Your task to perform on an android device: Open Youtube and go to "Your channel" Image 0: 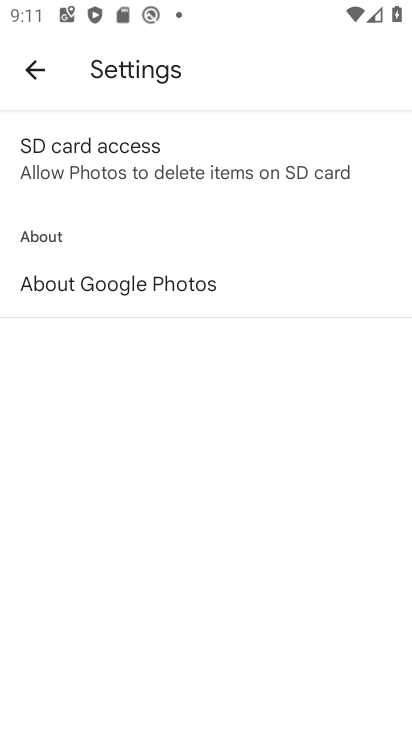
Step 0: press home button
Your task to perform on an android device: Open Youtube and go to "Your channel" Image 1: 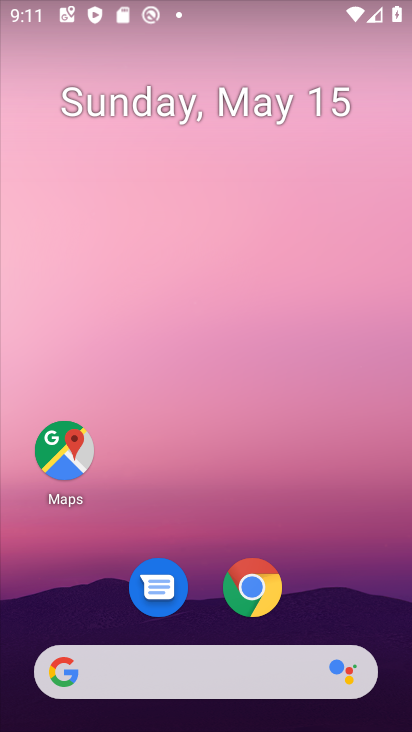
Step 1: drag from (358, 615) to (241, 61)
Your task to perform on an android device: Open Youtube and go to "Your channel" Image 2: 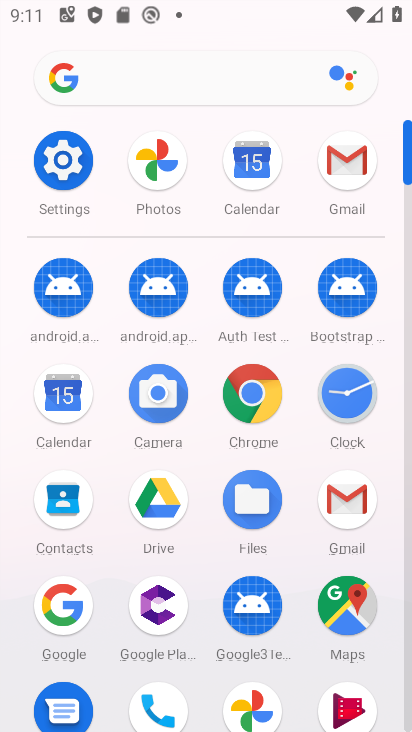
Step 2: drag from (299, 666) to (288, 192)
Your task to perform on an android device: Open Youtube and go to "Your channel" Image 3: 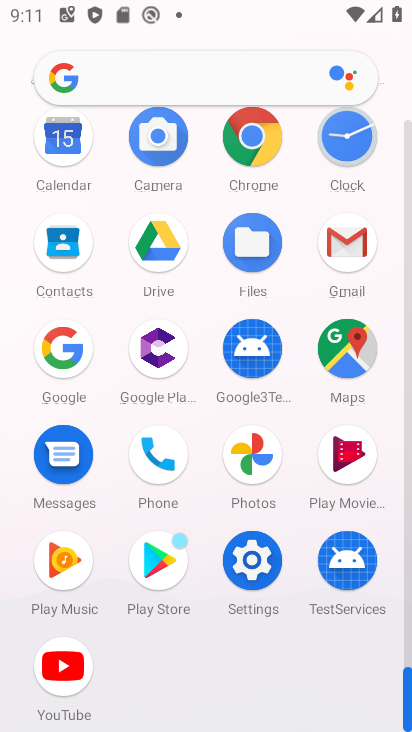
Step 3: click (62, 668)
Your task to perform on an android device: Open Youtube and go to "Your channel" Image 4: 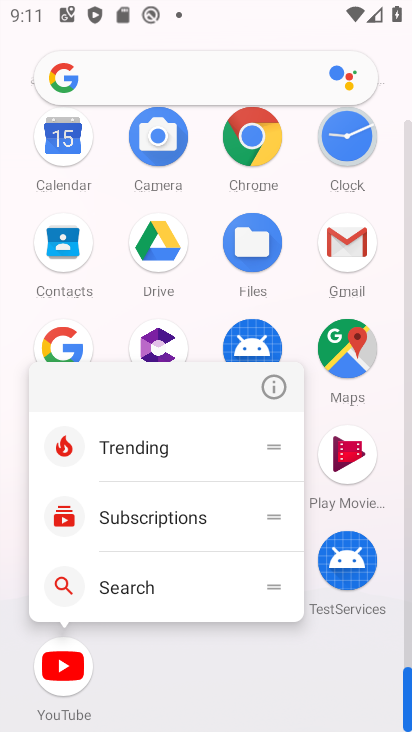
Step 4: click (62, 668)
Your task to perform on an android device: Open Youtube and go to "Your channel" Image 5: 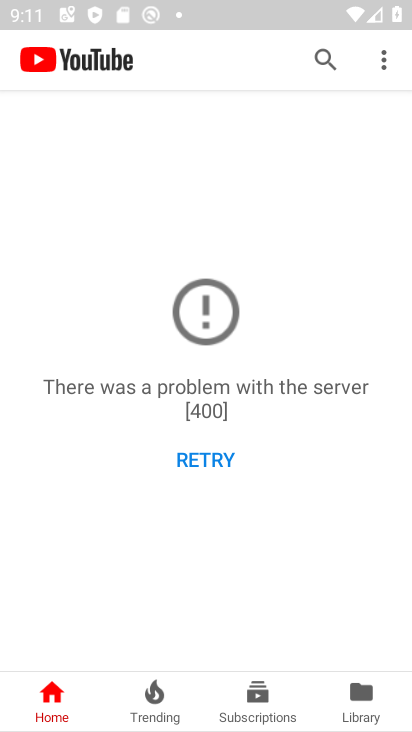
Step 5: click (193, 459)
Your task to perform on an android device: Open Youtube and go to "Your channel" Image 6: 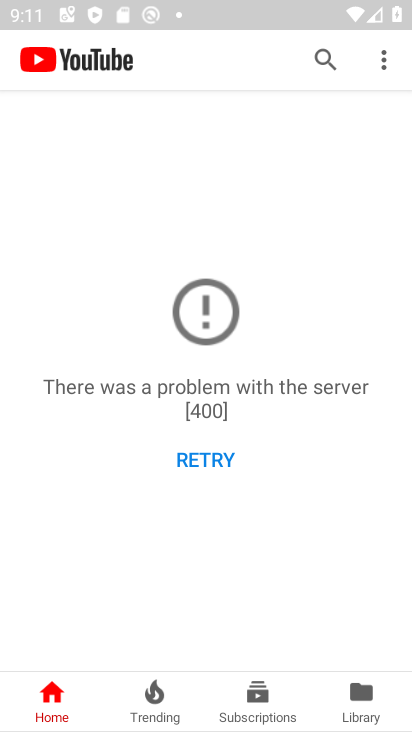
Step 6: click (193, 459)
Your task to perform on an android device: Open Youtube and go to "Your channel" Image 7: 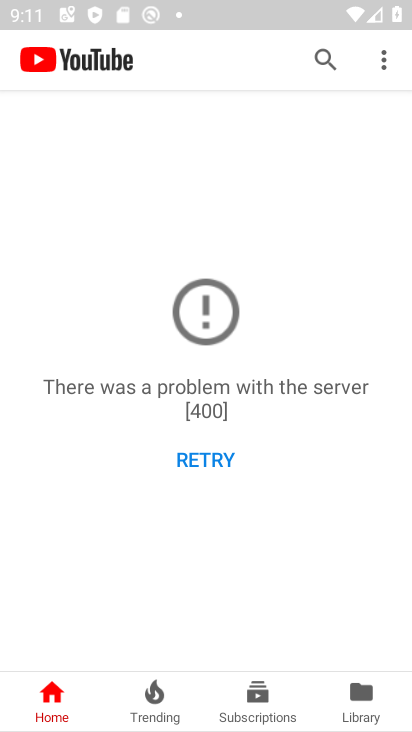
Step 7: task complete